Your task to perform on an android device: turn off location Image 0: 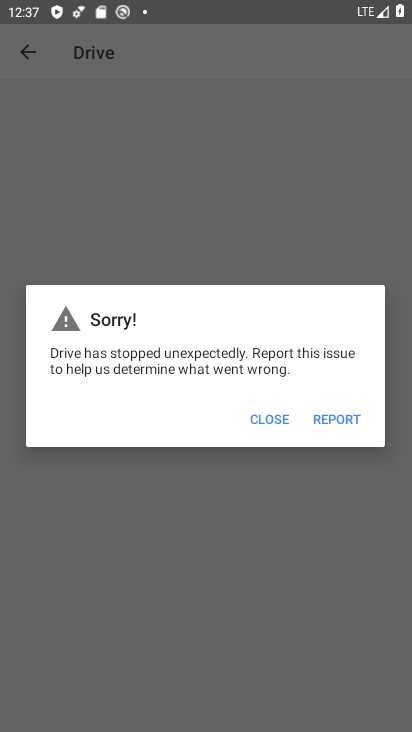
Step 0: press home button
Your task to perform on an android device: turn off location Image 1: 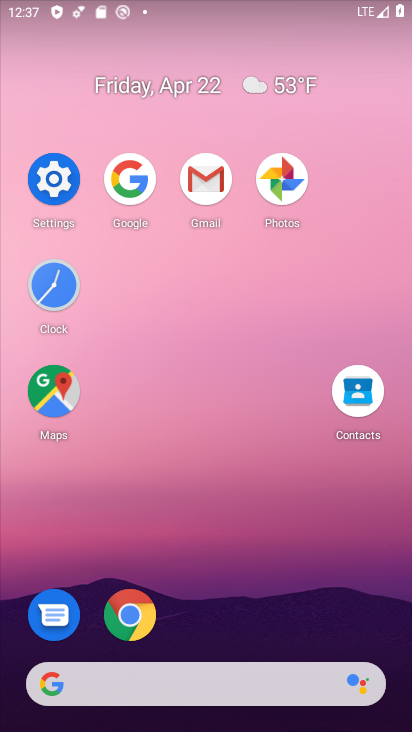
Step 1: click (62, 184)
Your task to perform on an android device: turn off location Image 2: 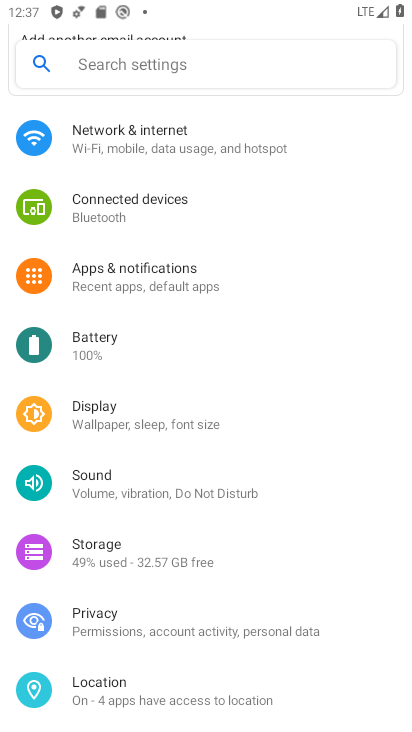
Step 2: click (189, 688)
Your task to perform on an android device: turn off location Image 3: 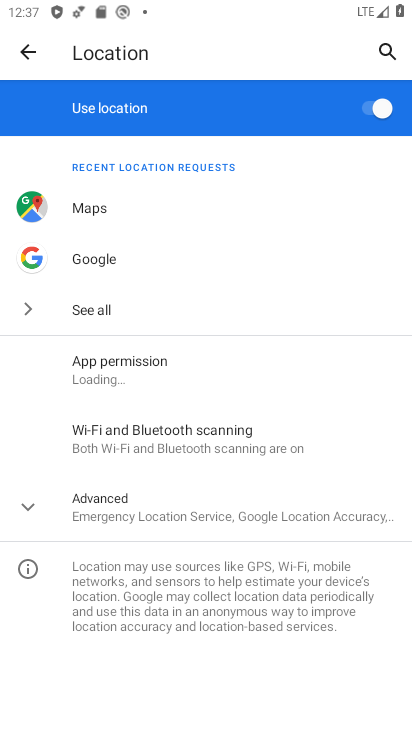
Step 3: click (373, 113)
Your task to perform on an android device: turn off location Image 4: 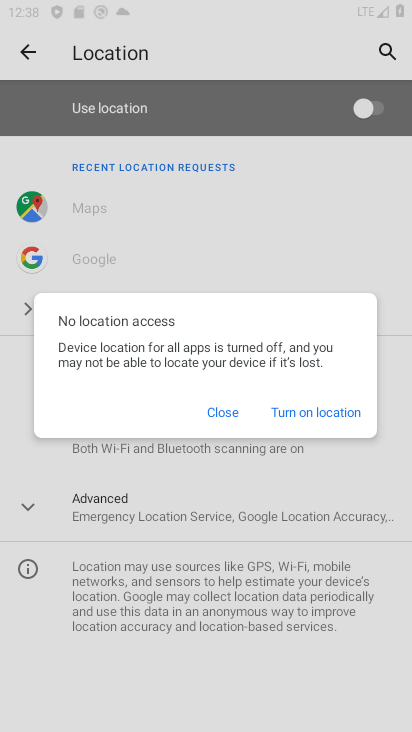
Step 4: task complete